Your task to perform on an android device: open device folders in google photos Image 0: 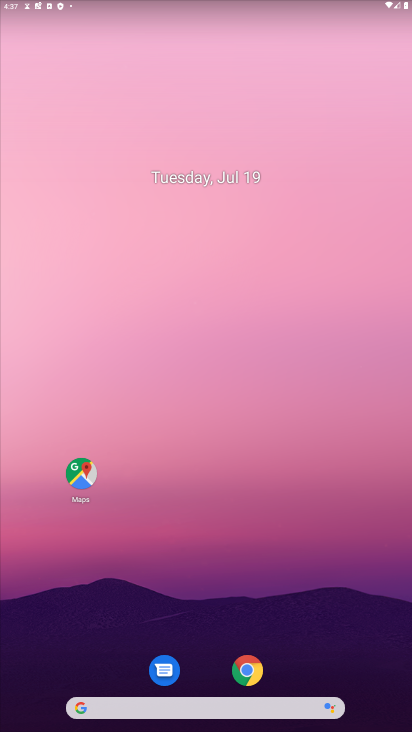
Step 0: drag from (292, 630) to (353, 29)
Your task to perform on an android device: open device folders in google photos Image 1: 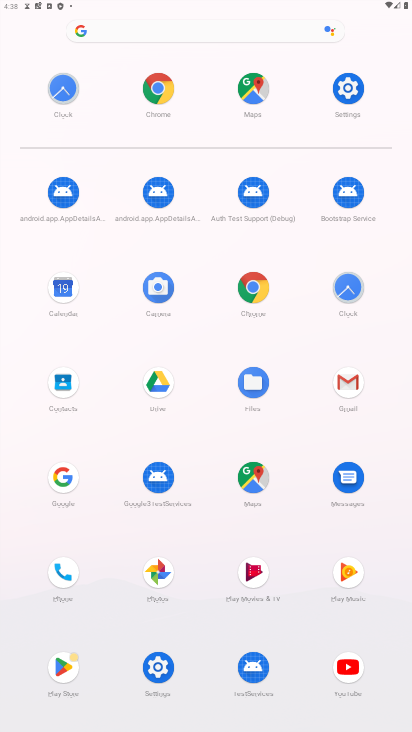
Step 1: click (160, 576)
Your task to perform on an android device: open device folders in google photos Image 2: 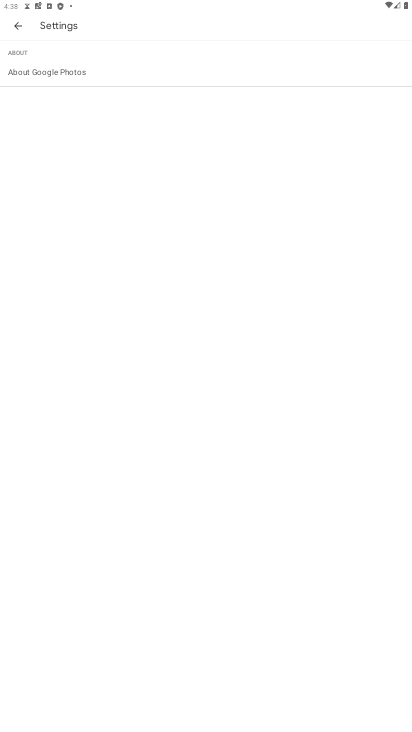
Step 2: press back button
Your task to perform on an android device: open device folders in google photos Image 3: 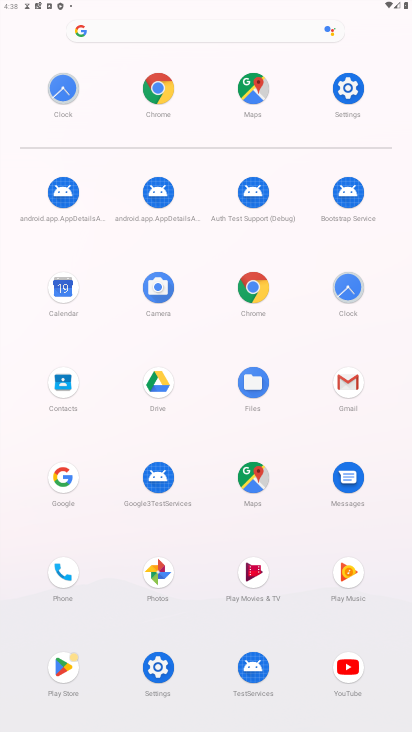
Step 3: click (154, 563)
Your task to perform on an android device: open device folders in google photos Image 4: 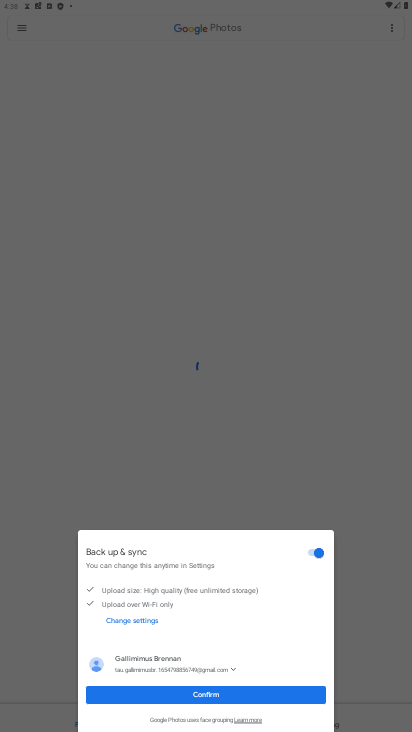
Step 4: click (204, 689)
Your task to perform on an android device: open device folders in google photos Image 5: 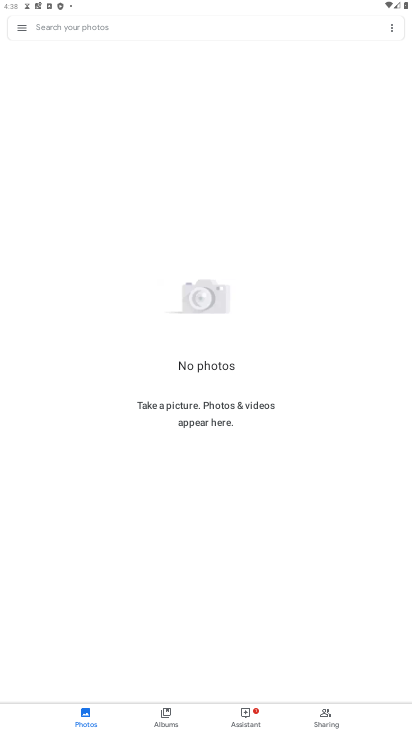
Step 5: click (19, 27)
Your task to perform on an android device: open device folders in google photos Image 6: 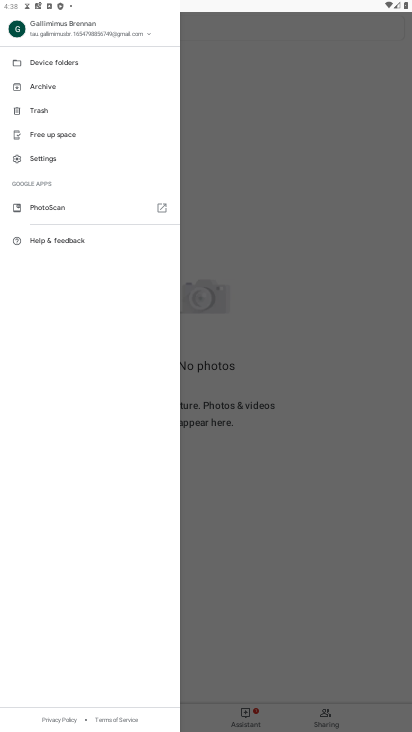
Step 6: click (54, 60)
Your task to perform on an android device: open device folders in google photos Image 7: 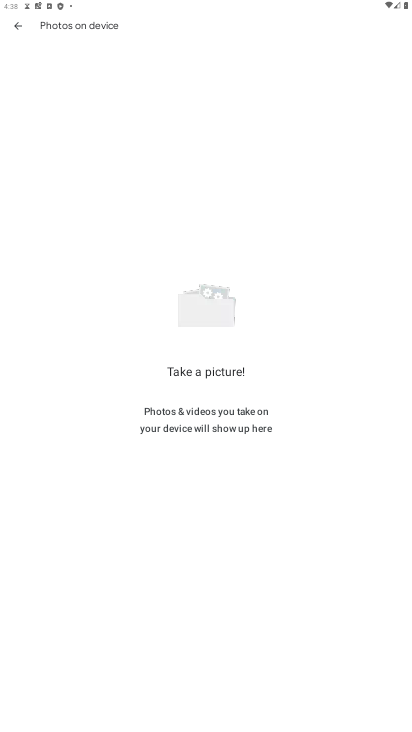
Step 7: task complete